Your task to perform on an android device: turn off airplane mode Image 0: 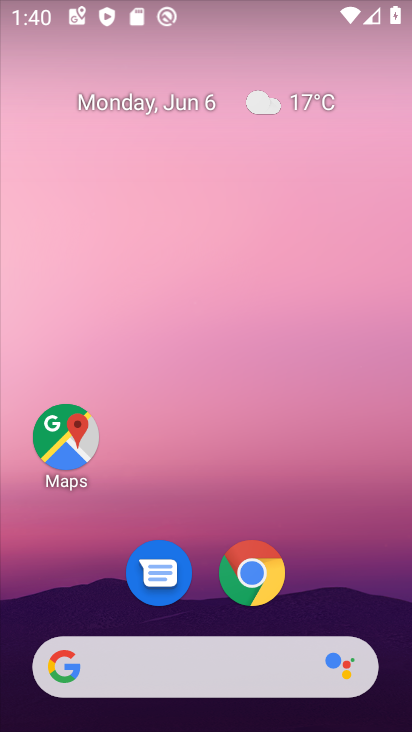
Step 0: drag from (346, 12) to (271, 516)
Your task to perform on an android device: turn off airplane mode Image 1: 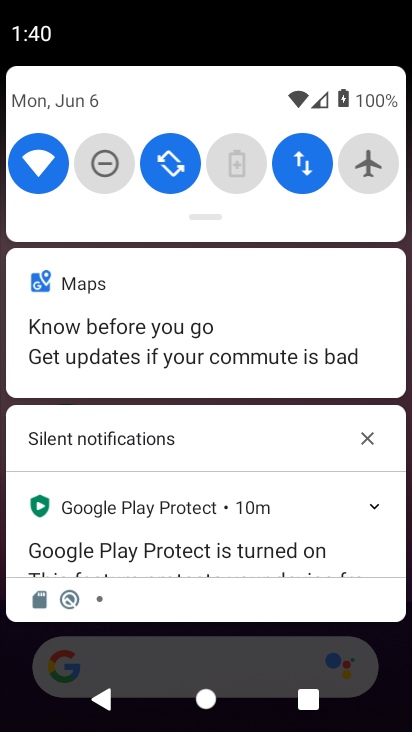
Step 1: task complete